Your task to perform on an android device: turn off sleep mode Image 0: 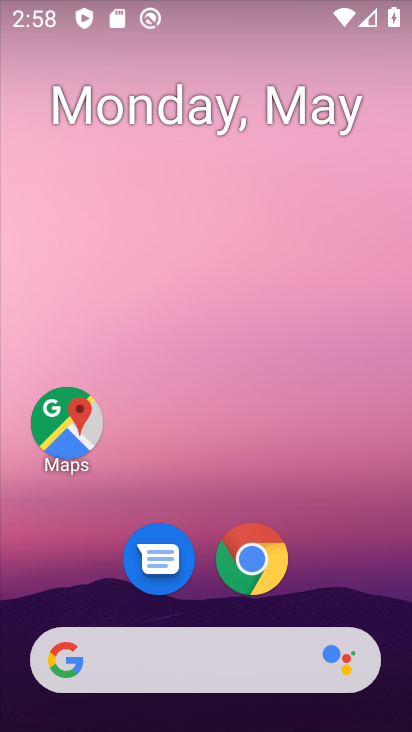
Step 0: drag from (364, 629) to (307, 278)
Your task to perform on an android device: turn off sleep mode Image 1: 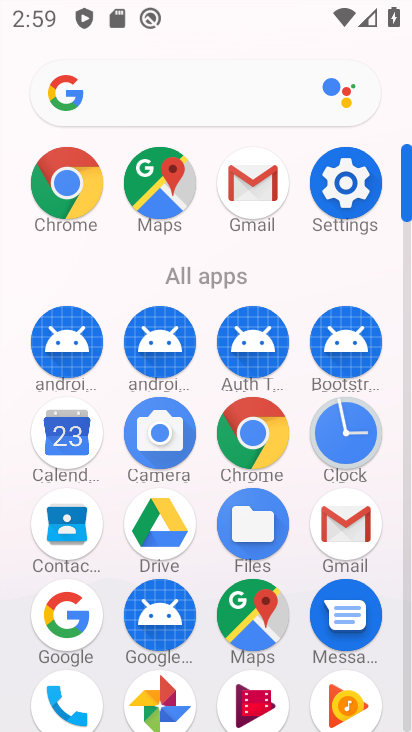
Step 1: click (354, 189)
Your task to perform on an android device: turn off sleep mode Image 2: 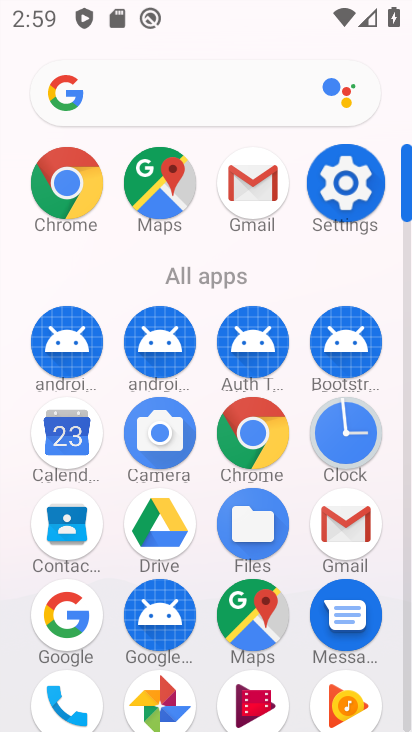
Step 2: click (355, 188)
Your task to perform on an android device: turn off sleep mode Image 3: 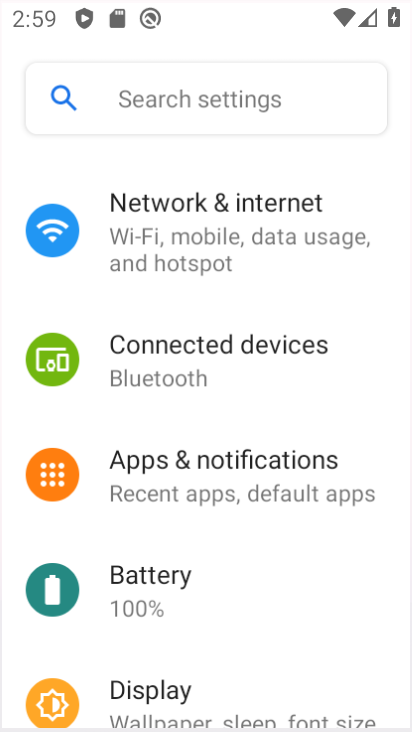
Step 3: click (355, 188)
Your task to perform on an android device: turn off sleep mode Image 4: 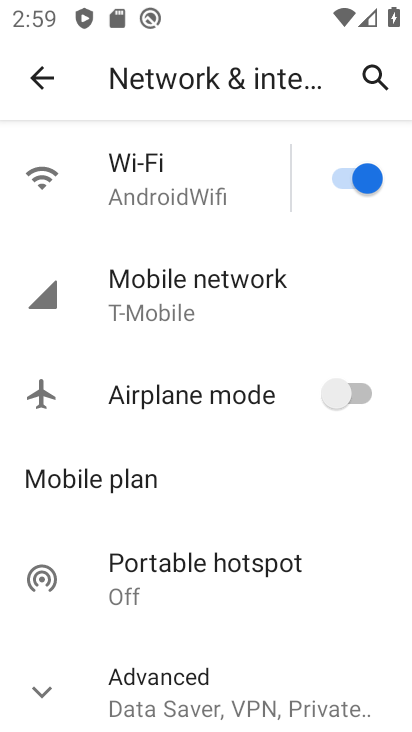
Step 4: click (33, 86)
Your task to perform on an android device: turn off sleep mode Image 5: 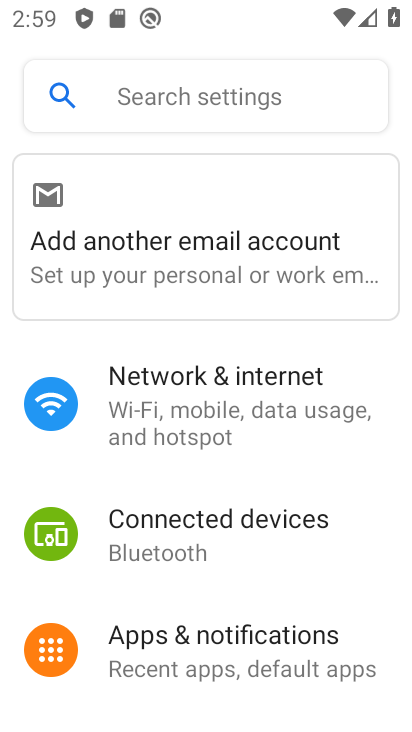
Step 5: drag from (235, 549) to (229, 292)
Your task to perform on an android device: turn off sleep mode Image 6: 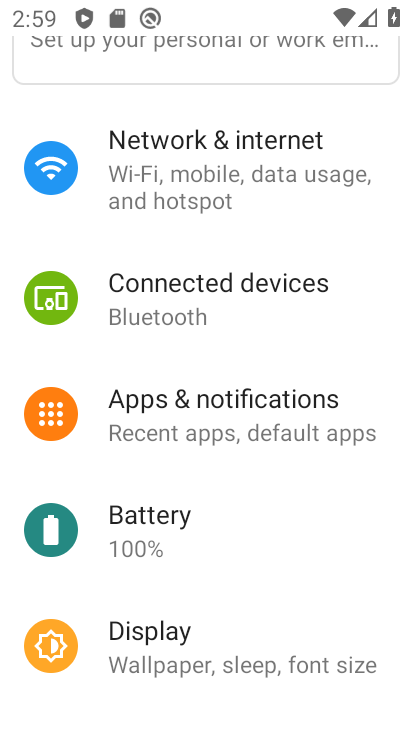
Step 6: drag from (254, 525) to (338, 129)
Your task to perform on an android device: turn off sleep mode Image 7: 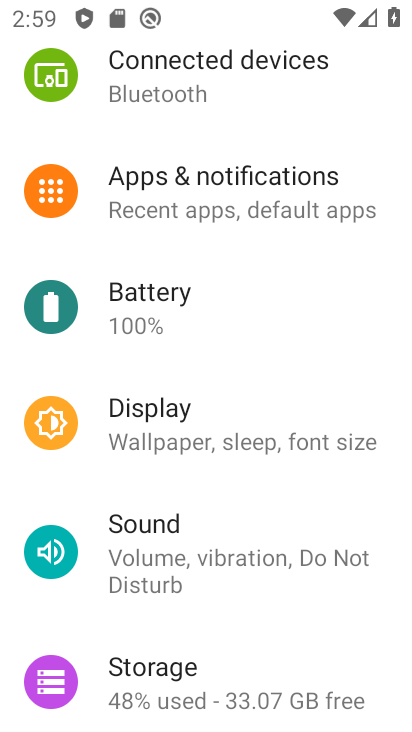
Step 7: click (150, 436)
Your task to perform on an android device: turn off sleep mode Image 8: 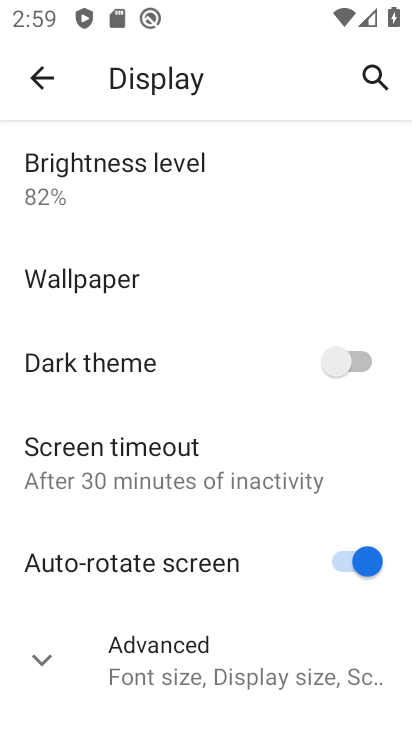
Step 8: click (106, 470)
Your task to perform on an android device: turn off sleep mode Image 9: 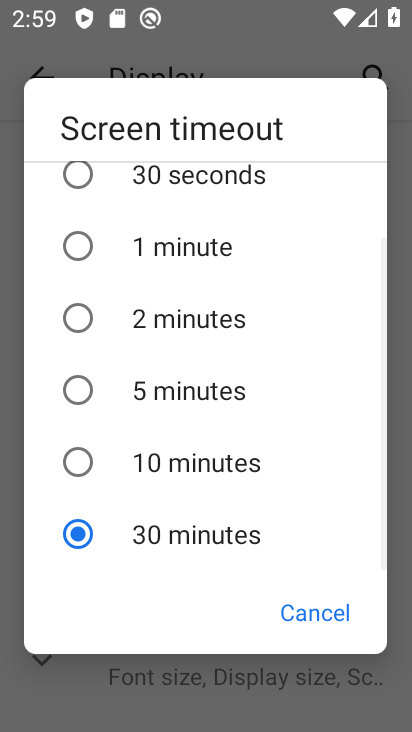
Step 9: click (87, 457)
Your task to perform on an android device: turn off sleep mode Image 10: 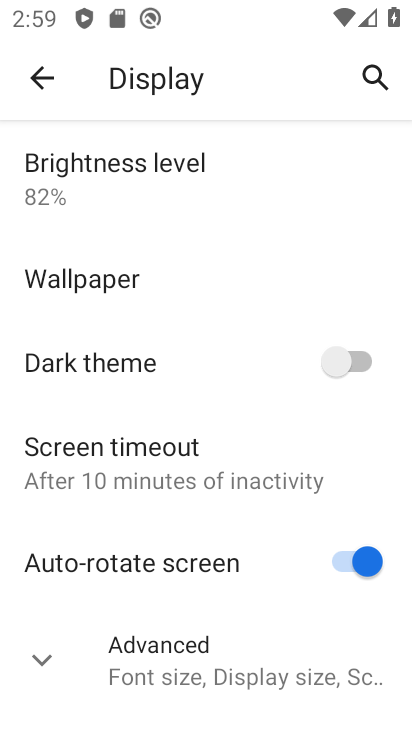
Step 10: task complete